Your task to perform on an android device: change the clock display to analog Image 0: 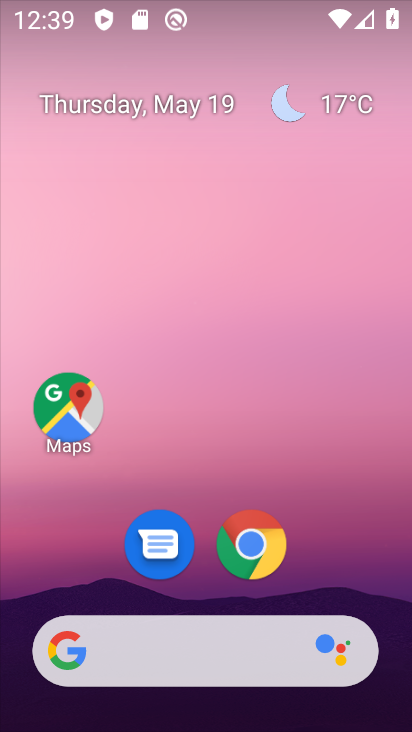
Step 0: drag from (233, 719) to (235, 133)
Your task to perform on an android device: change the clock display to analog Image 1: 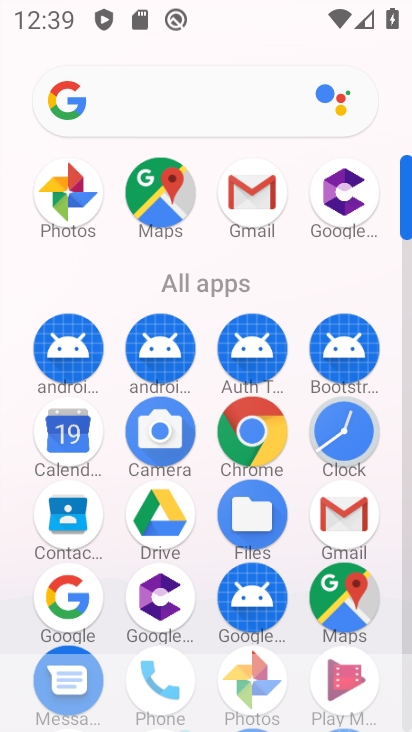
Step 1: click (352, 421)
Your task to perform on an android device: change the clock display to analog Image 2: 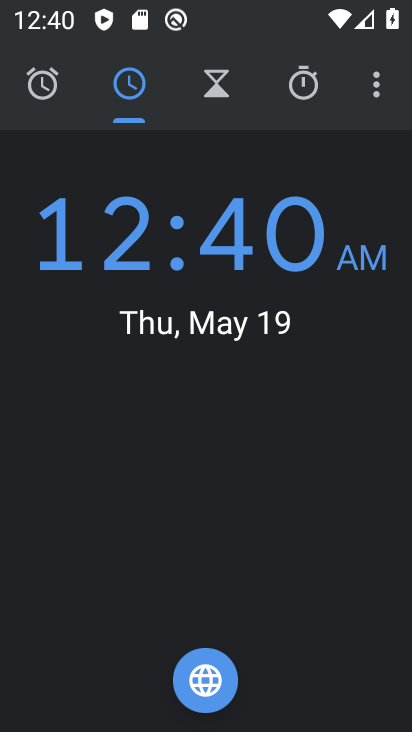
Step 2: click (375, 88)
Your task to perform on an android device: change the clock display to analog Image 3: 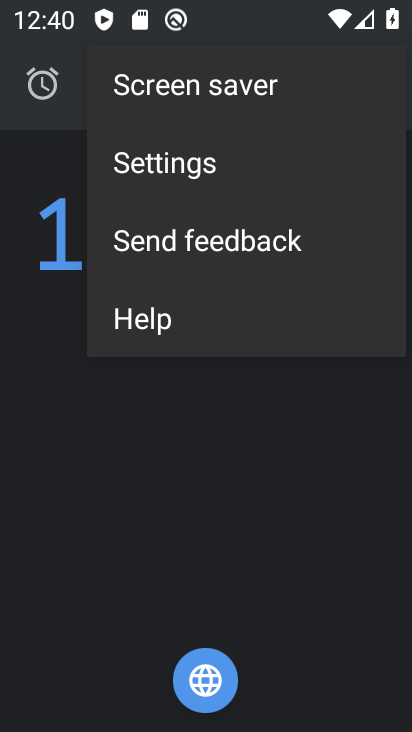
Step 3: click (175, 164)
Your task to perform on an android device: change the clock display to analog Image 4: 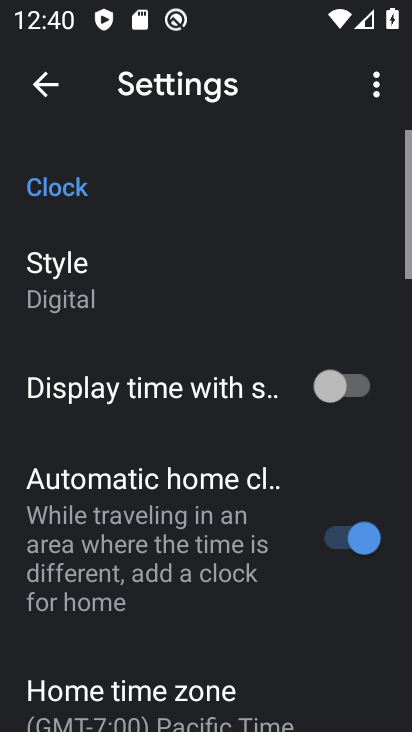
Step 4: click (79, 280)
Your task to perform on an android device: change the clock display to analog Image 5: 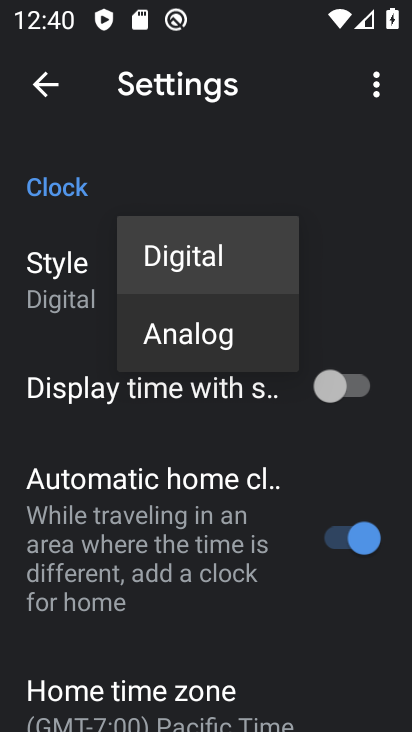
Step 5: click (163, 325)
Your task to perform on an android device: change the clock display to analog Image 6: 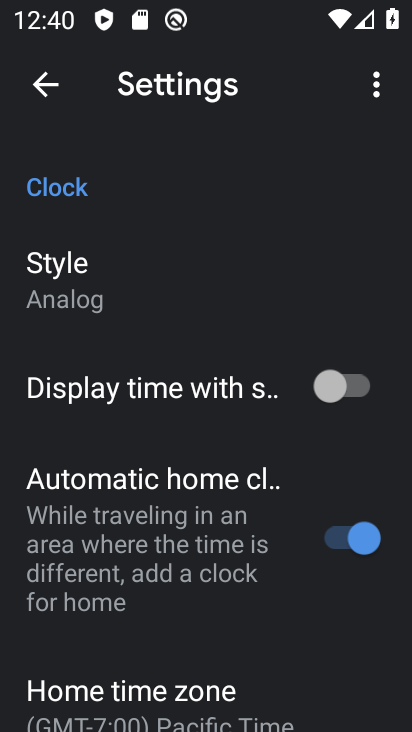
Step 6: task complete